Your task to perform on an android device: turn notification dots on Image 0: 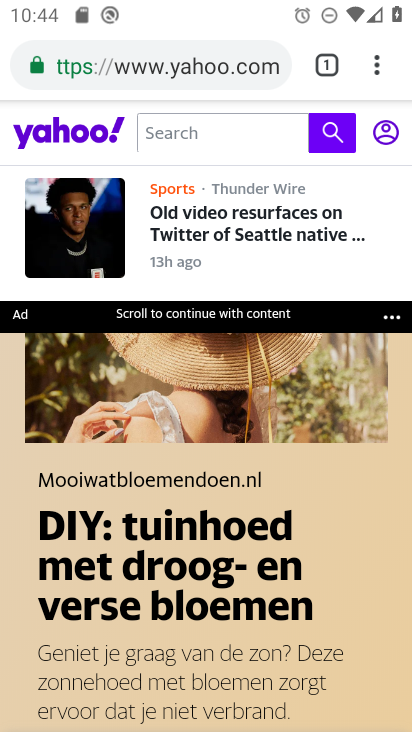
Step 0: click (379, 60)
Your task to perform on an android device: turn notification dots on Image 1: 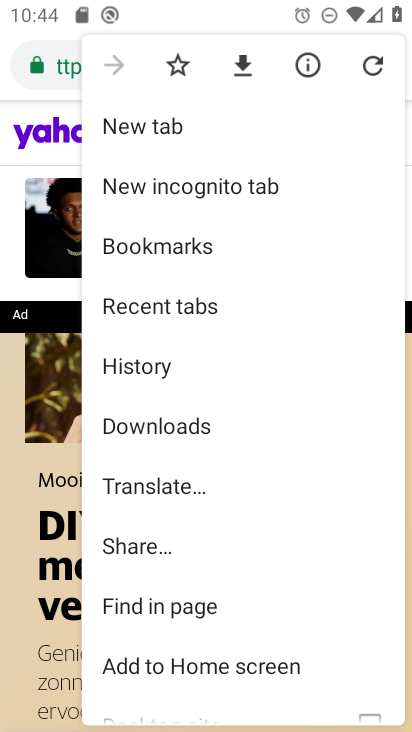
Step 1: drag from (254, 638) to (295, 313)
Your task to perform on an android device: turn notification dots on Image 2: 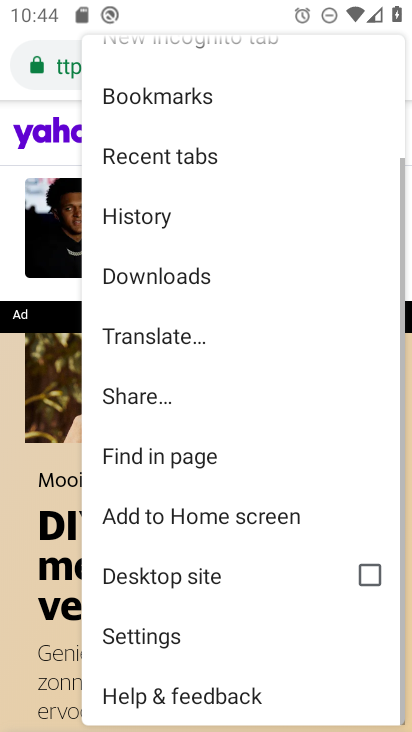
Step 2: press home button
Your task to perform on an android device: turn notification dots on Image 3: 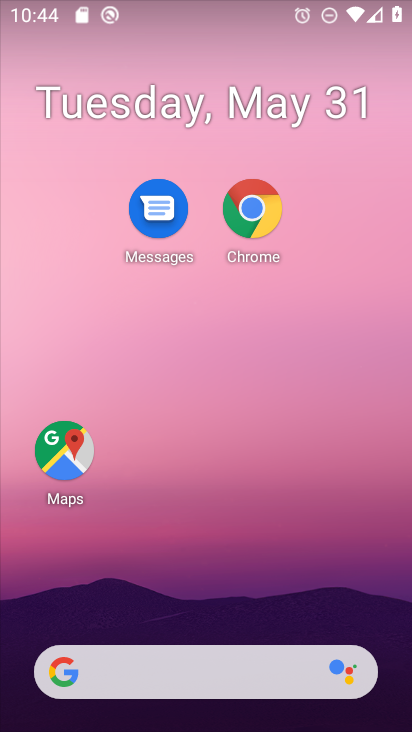
Step 3: drag from (214, 626) to (224, 49)
Your task to perform on an android device: turn notification dots on Image 4: 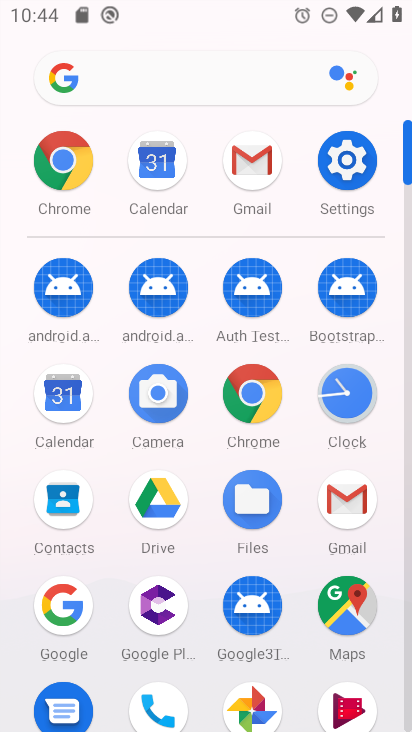
Step 4: click (346, 155)
Your task to perform on an android device: turn notification dots on Image 5: 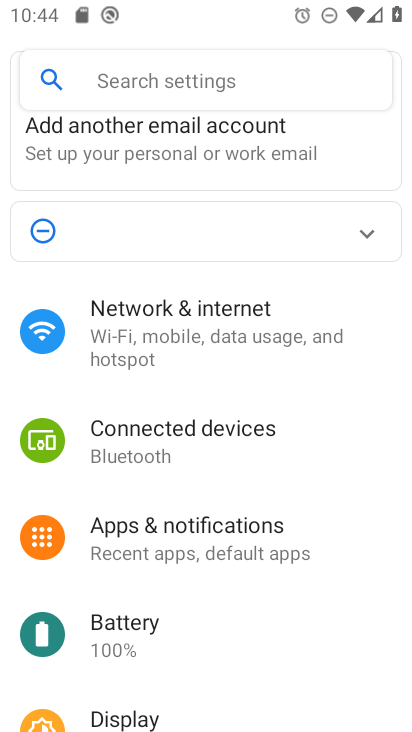
Step 5: click (197, 533)
Your task to perform on an android device: turn notification dots on Image 6: 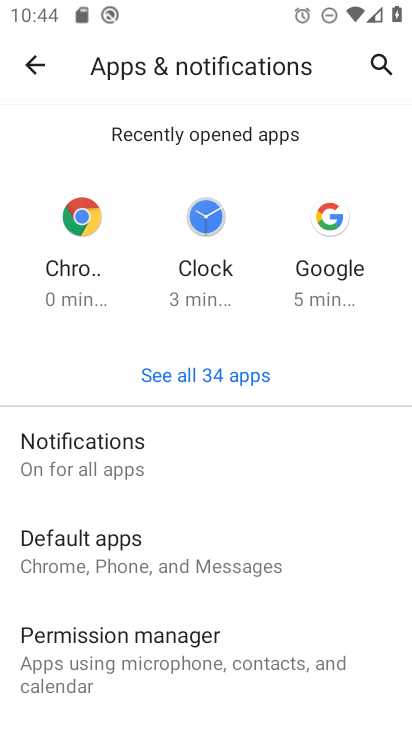
Step 6: click (158, 455)
Your task to perform on an android device: turn notification dots on Image 7: 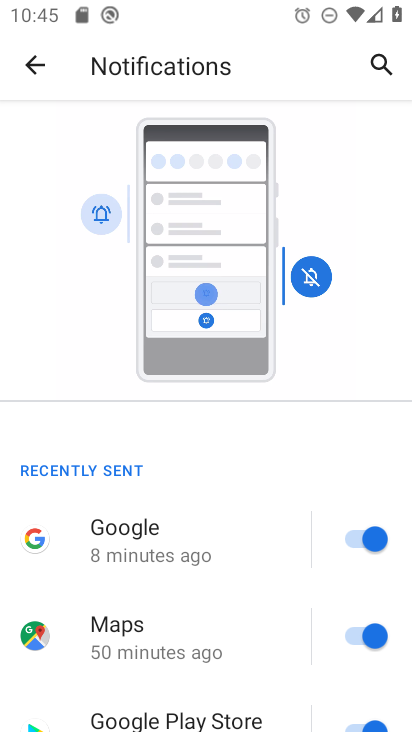
Step 7: drag from (248, 649) to (248, 159)
Your task to perform on an android device: turn notification dots on Image 8: 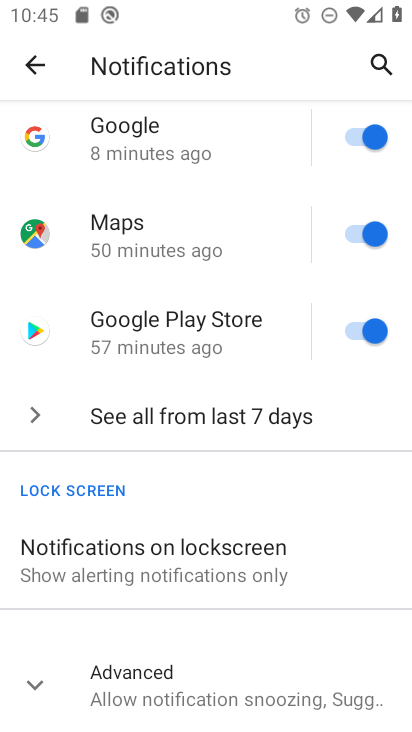
Step 8: click (35, 684)
Your task to perform on an android device: turn notification dots on Image 9: 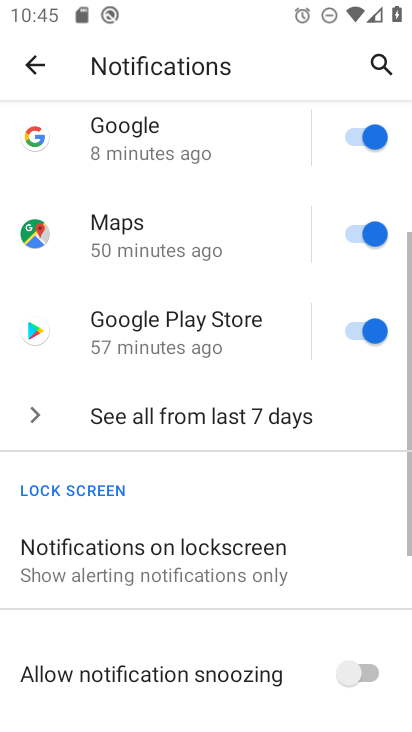
Step 9: task complete